Your task to perform on an android device: turn on airplane mode Image 0: 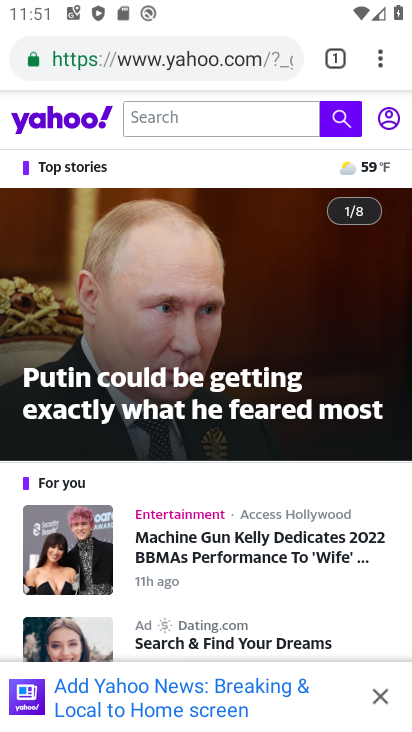
Step 0: press home button
Your task to perform on an android device: turn on airplane mode Image 1: 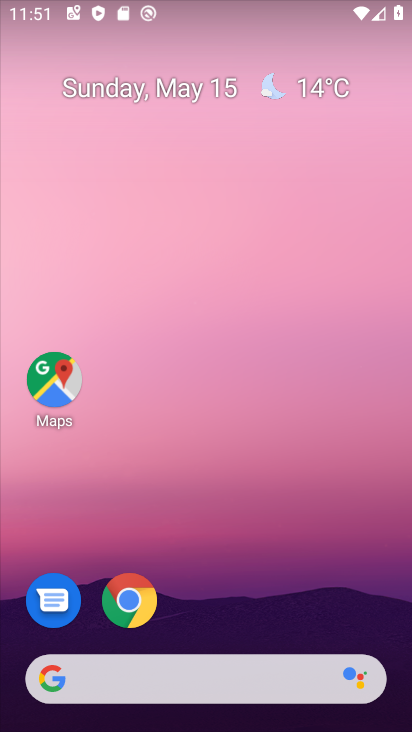
Step 1: drag from (389, 639) to (338, 111)
Your task to perform on an android device: turn on airplane mode Image 2: 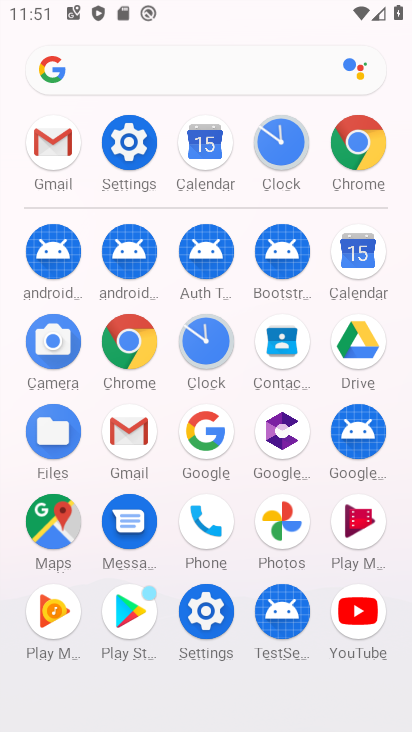
Step 2: click (209, 611)
Your task to perform on an android device: turn on airplane mode Image 3: 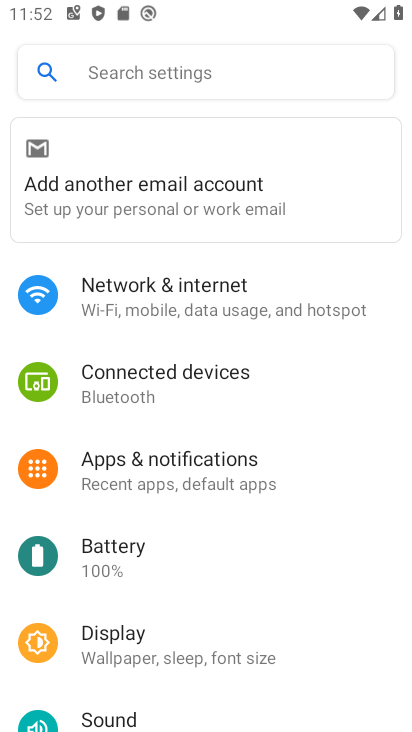
Step 3: click (131, 301)
Your task to perform on an android device: turn on airplane mode Image 4: 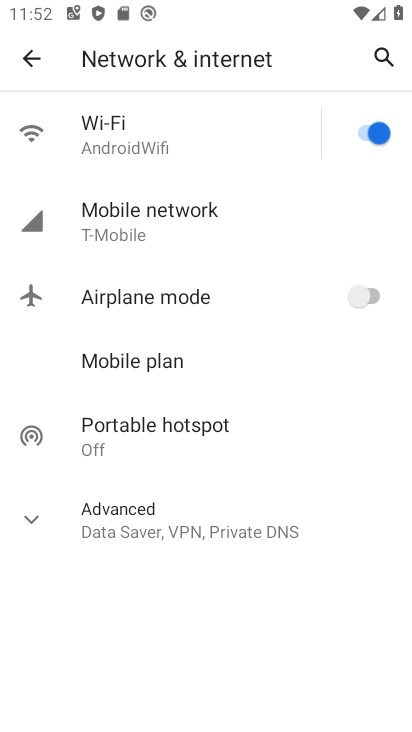
Step 4: click (378, 298)
Your task to perform on an android device: turn on airplane mode Image 5: 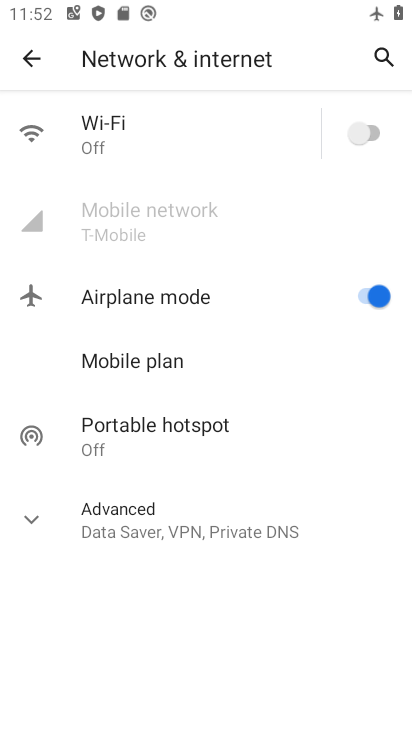
Step 5: task complete